Your task to perform on an android device: Open battery settings Image 0: 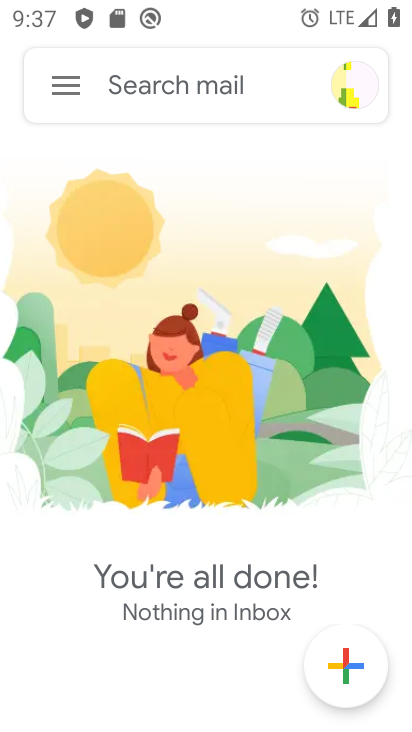
Step 0: press home button
Your task to perform on an android device: Open battery settings Image 1: 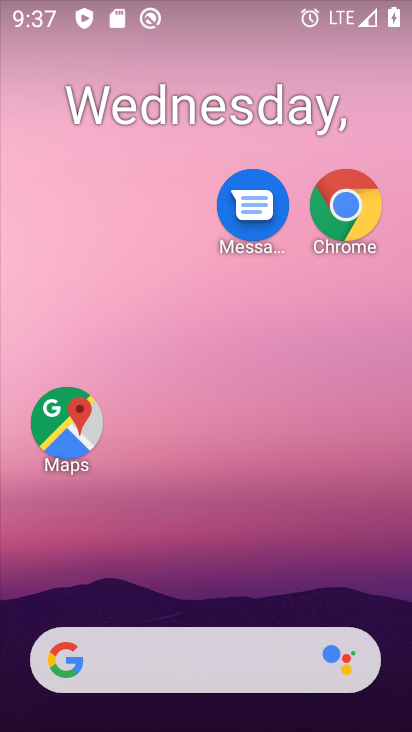
Step 1: drag from (216, 594) to (265, 281)
Your task to perform on an android device: Open battery settings Image 2: 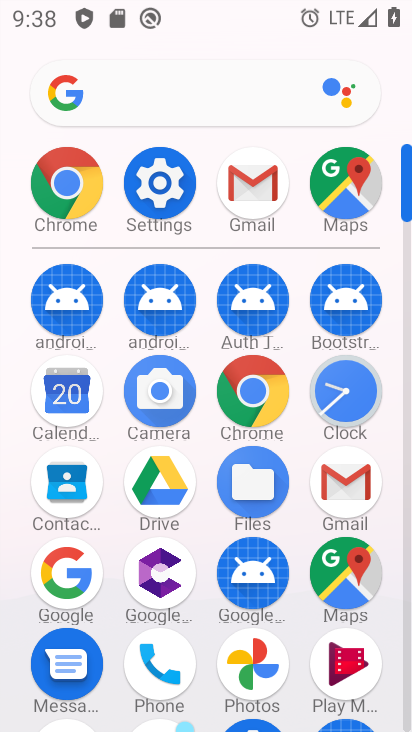
Step 2: click (160, 185)
Your task to perform on an android device: Open battery settings Image 3: 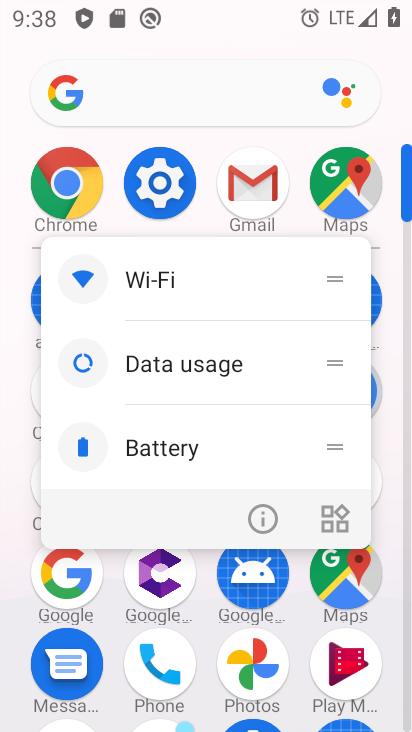
Step 3: click (261, 520)
Your task to perform on an android device: Open battery settings Image 4: 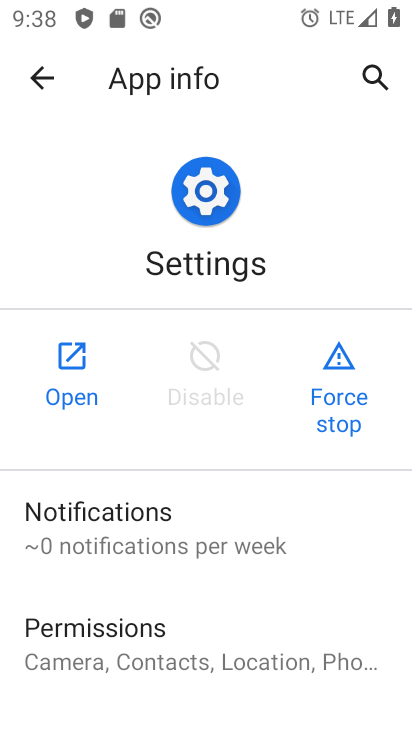
Step 4: click (71, 383)
Your task to perform on an android device: Open battery settings Image 5: 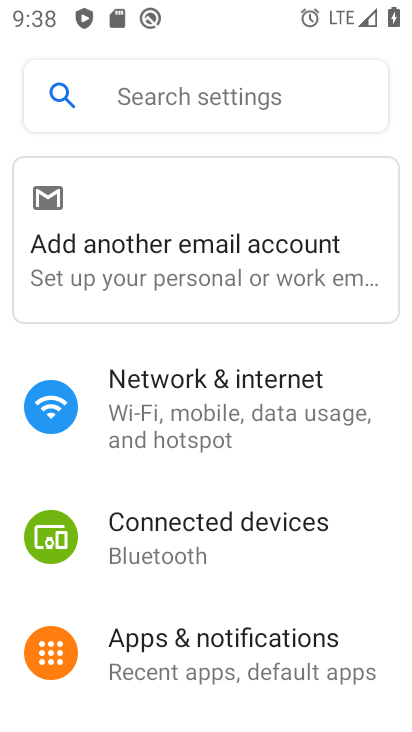
Step 5: drag from (292, 669) to (340, 131)
Your task to perform on an android device: Open battery settings Image 6: 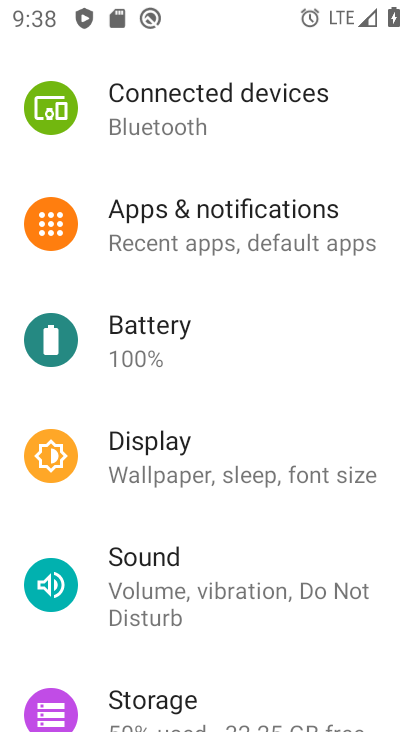
Step 6: click (171, 342)
Your task to perform on an android device: Open battery settings Image 7: 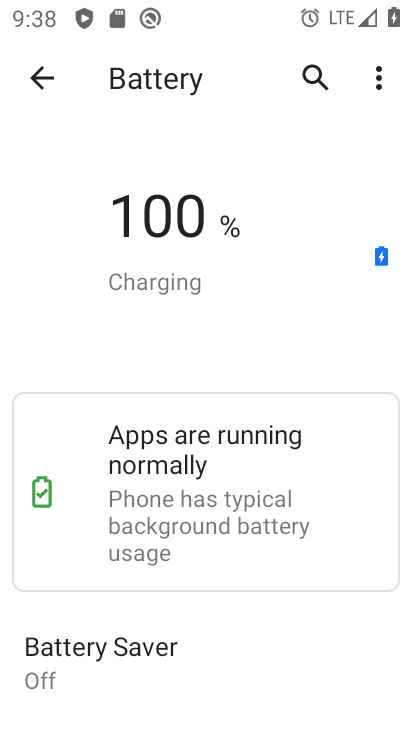
Step 7: task complete